Your task to perform on an android device: Open internet settings Image 0: 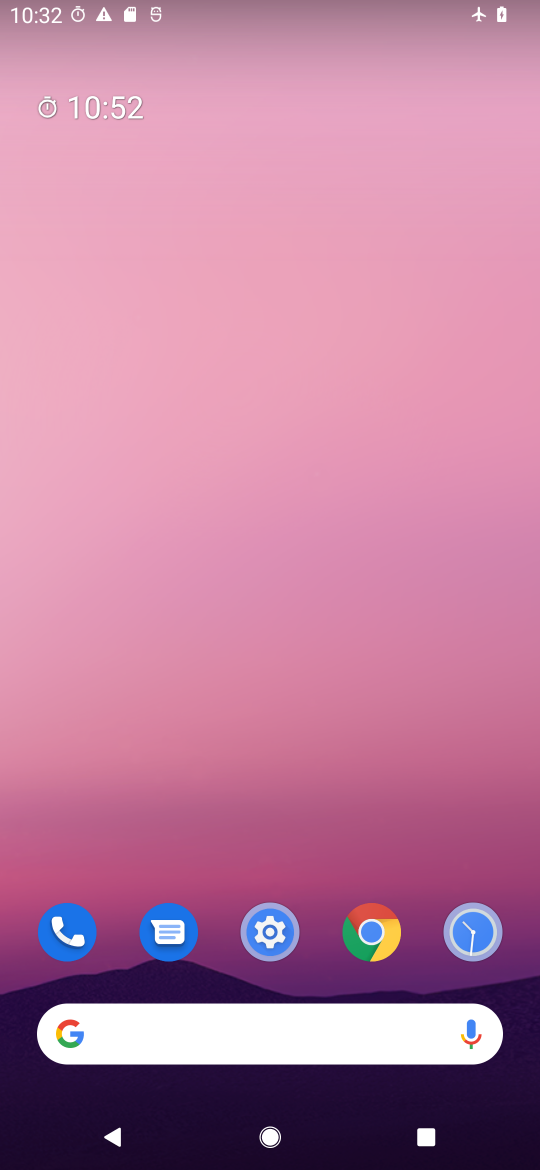
Step 0: click (267, 943)
Your task to perform on an android device: Open internet settings Image 1: 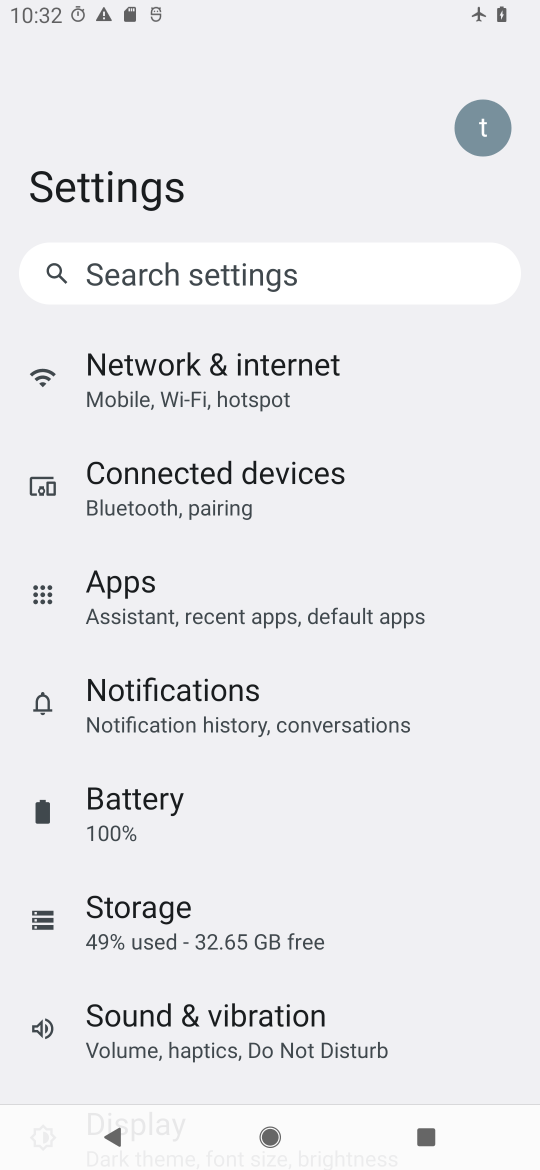
Step 1: click (166, 396)
Your task to perform on an android device: Open internet settings Image 2: 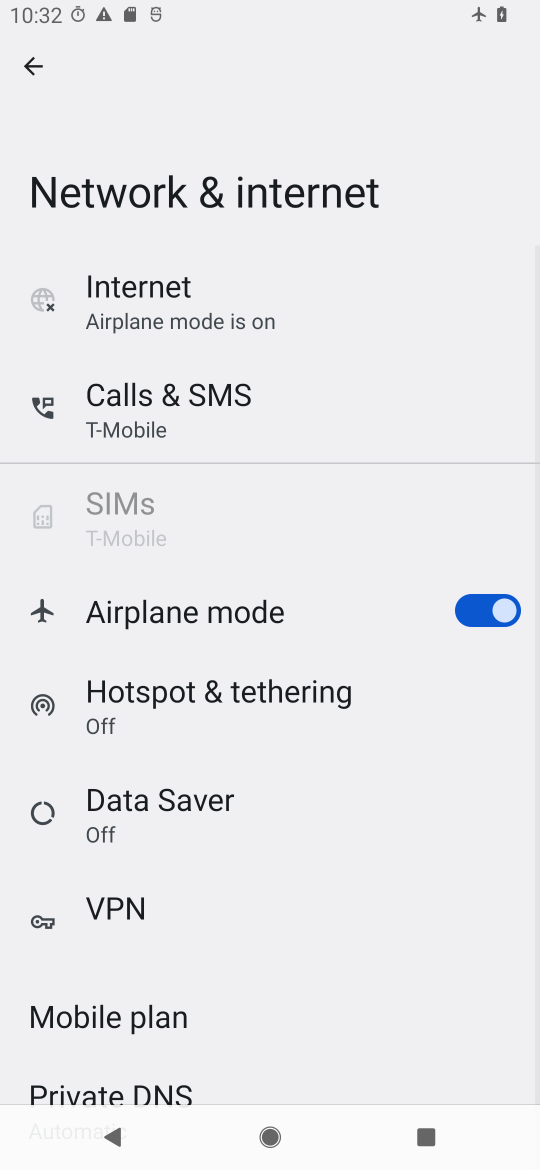
Step 2: click (185, 294)
Your task to perform on an android device: Open internet settings Image 3: 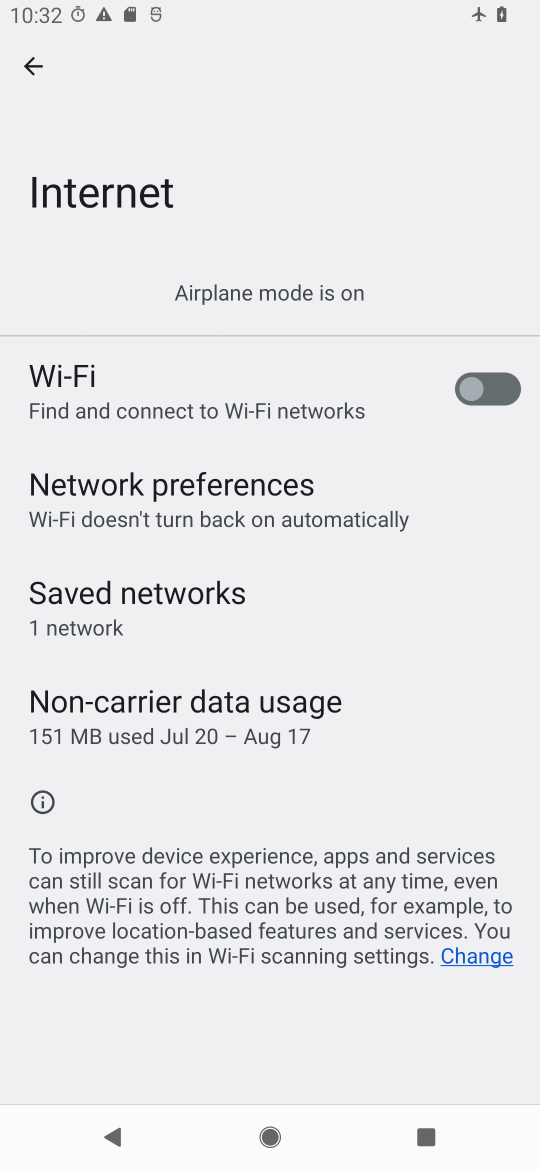
Step 3: task complete